Your task to perform on an android device: Go to battery settings Image 0: 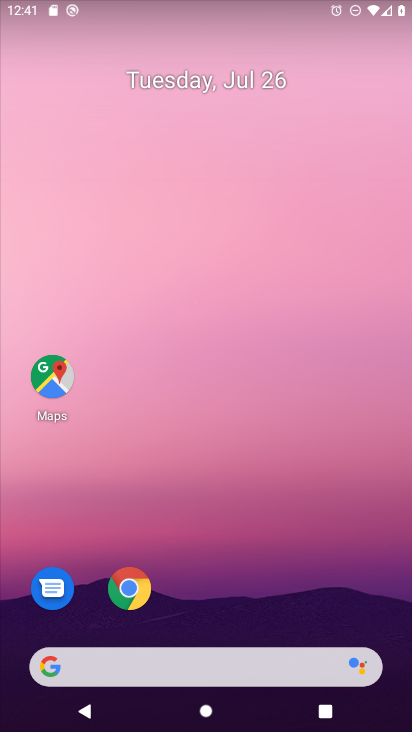
Step 0: drag from (272, 620) to (262, 164)
Your task to perform on an android device: Go to battery settings Image 1: 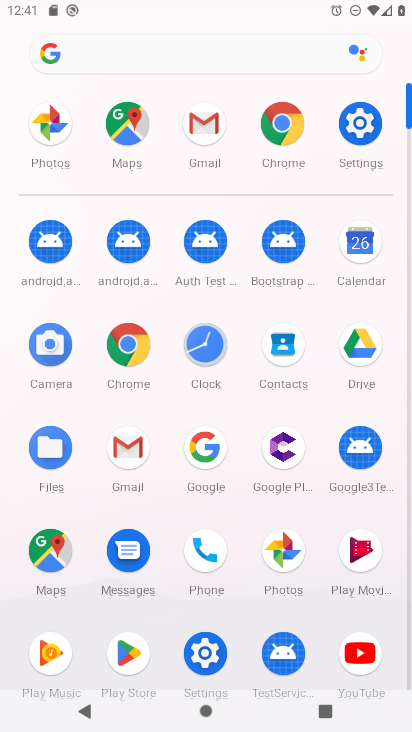
Step 1: click (353, 134)
Your task to perform on an android device: Go to battery settings Image 2: 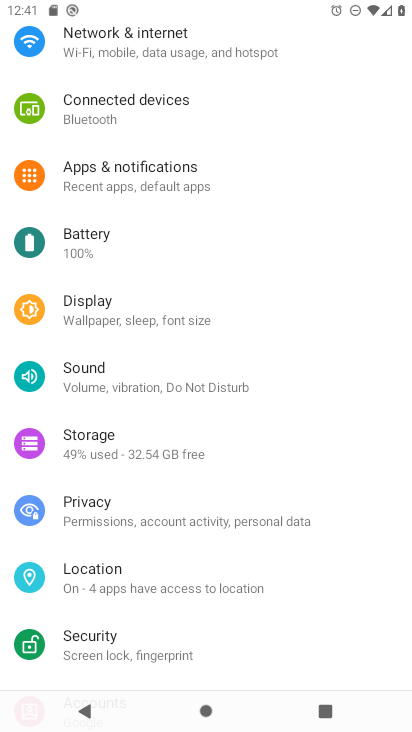
Step 2: click (211, 231)
Your task to perform on an android device: Go to battery settings Image 3: 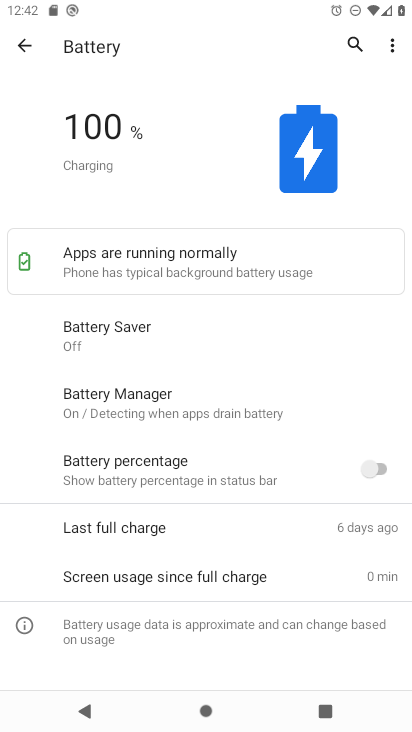
Step 3: task complete